Your task to perform on an android device: turn off translation in the chrome app Image 0: 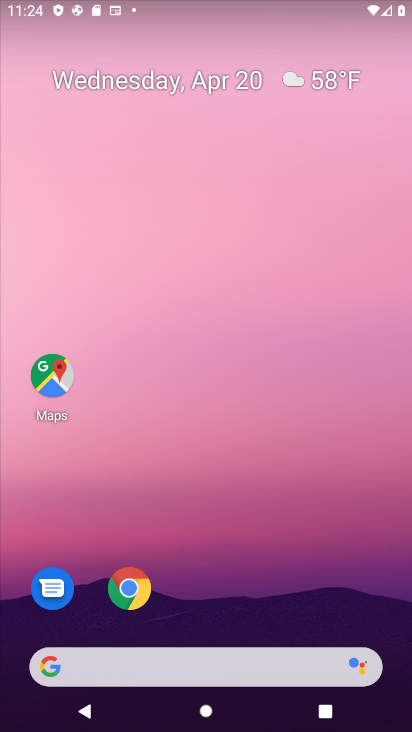
Step 0: click (126, 599)
Your task to perform on an android device: turn off translation in the chrome app Image 1: 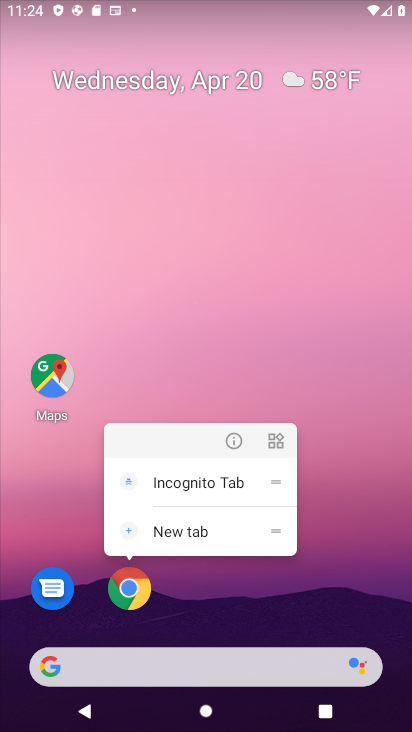
Step 1: click (133, 595)
Your task to perform on an android device: turn off translation in the chrome app Image 2: 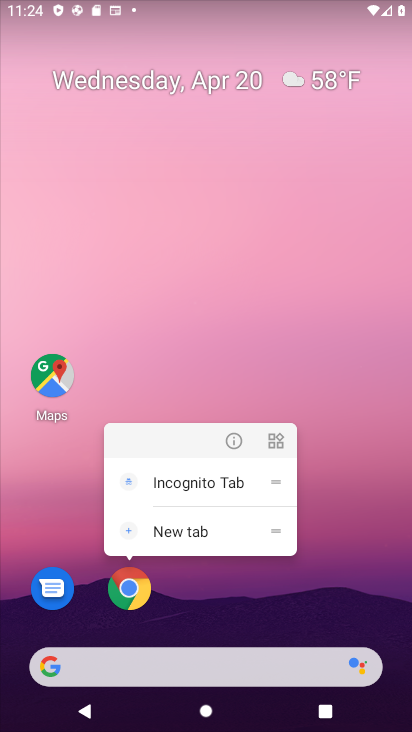
Step 2: click (138, 598)
Your task to perform on an android device: turn off translation in the chrome app Image 3: 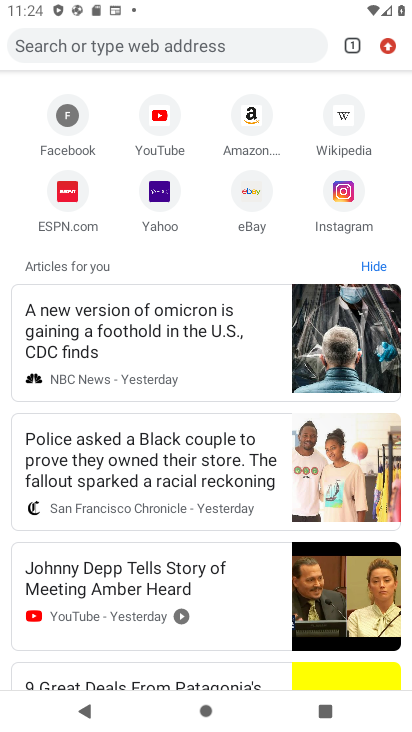
Step 3: click (387, 43)
Your task to perform on an android device: turn off translation in the chrome app Image 4: 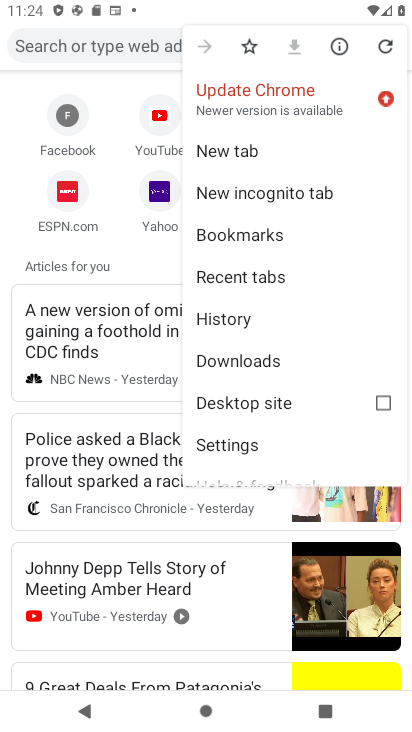
Step 4: click (230, 451)
Your task to perform on an android device: turn off translation in the chrome app Image 5: 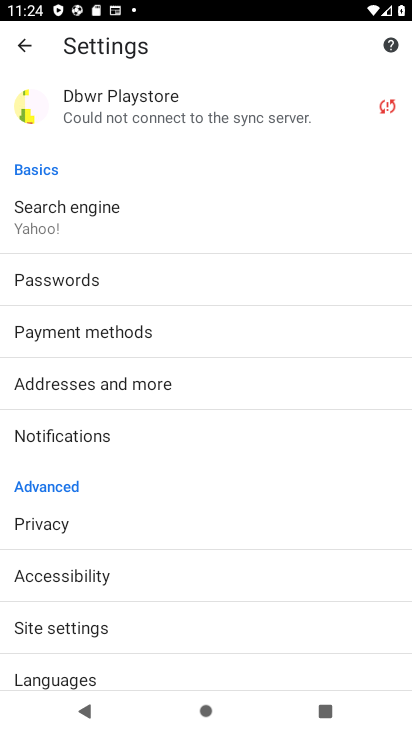
Step 5: drag from (185, 615) to (185, 348)
Your task to perform on an android device: turn off translation in the chrome app Image 6: 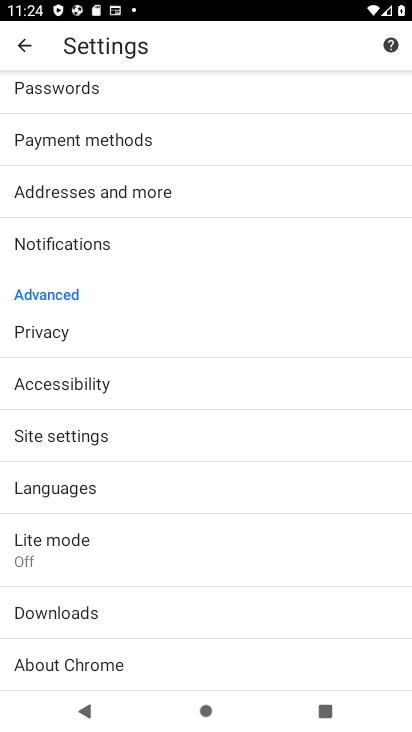
Step 6: click (122, 487)
Your task to perform on an android device: turn off translation in the chrome app Image 7: 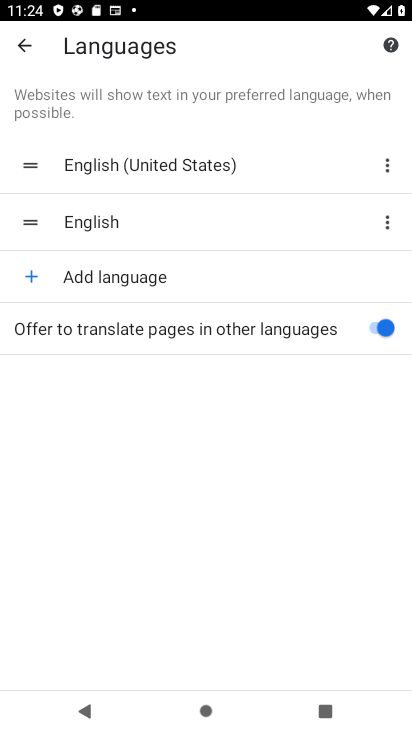
Step 7: click (382, 324)
Your task to perform on an android device: turn off translation in the chrome app Image 8: 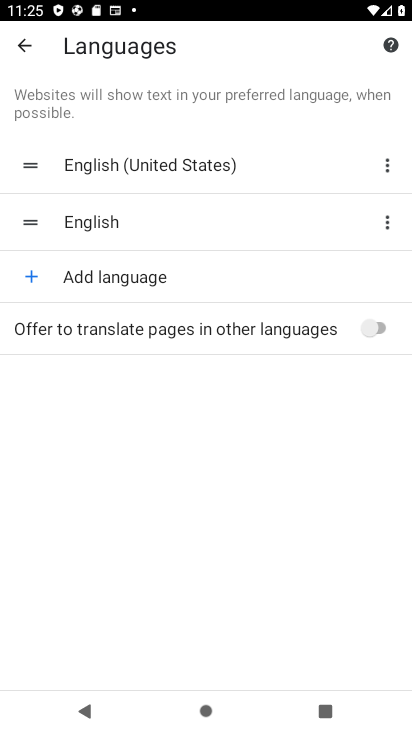
Step 8: task complete